Your task to perform on an android device: Go to network settings Image 0: 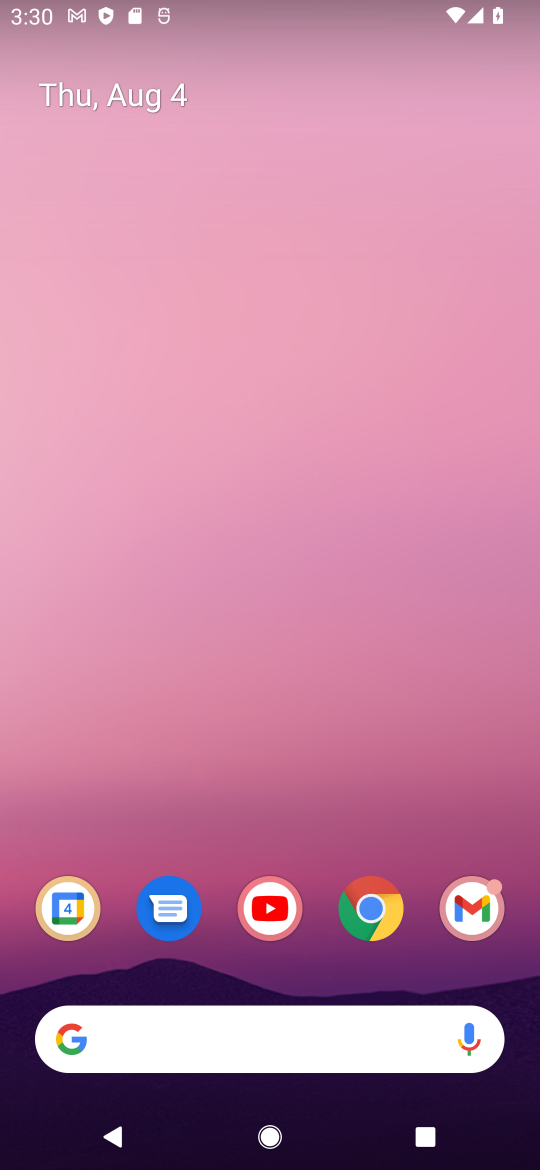
Step 0: drag from (438, 796) to (393, 53)
Your task to perform on an android device: Go to network settings Image 1: 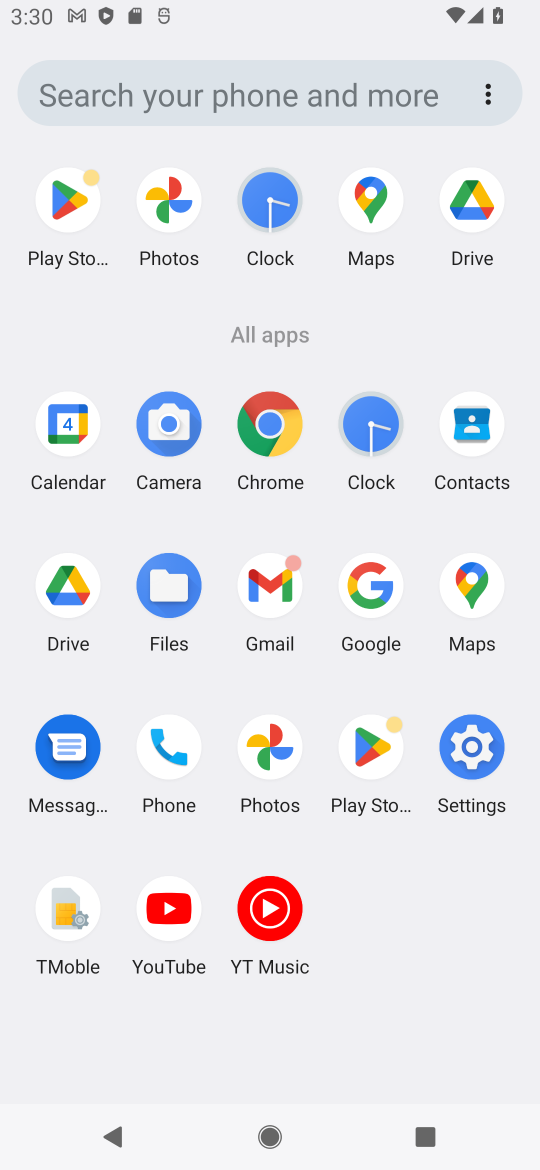
Step 1: click (472, 752)
Your task to perform on an android device: Go to network settings Image 2: 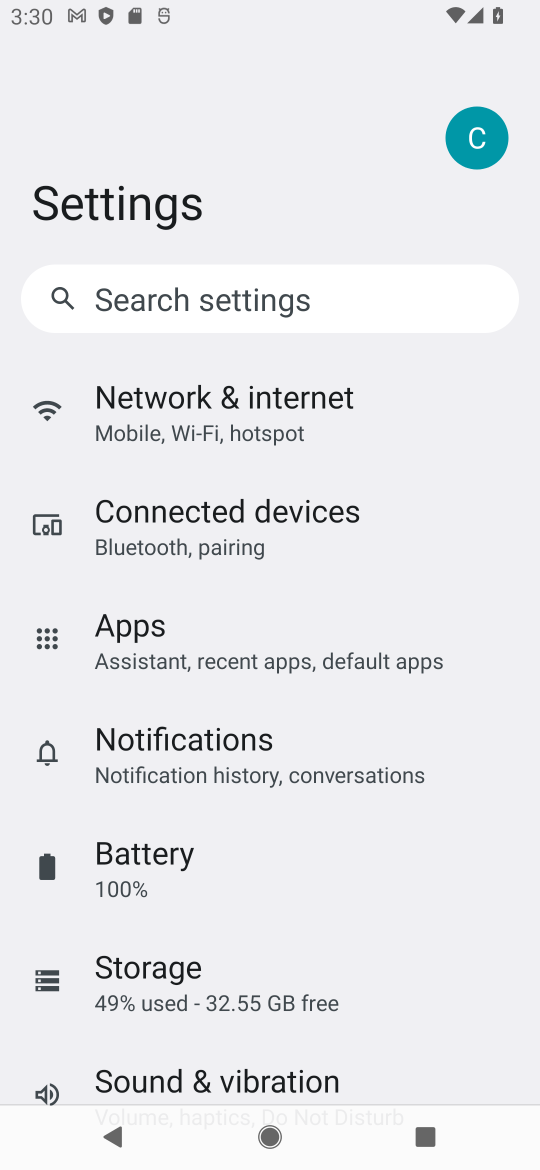
Step 2: click (170, 398)
Your task to perform on an android device: Go to network settings Image 3: 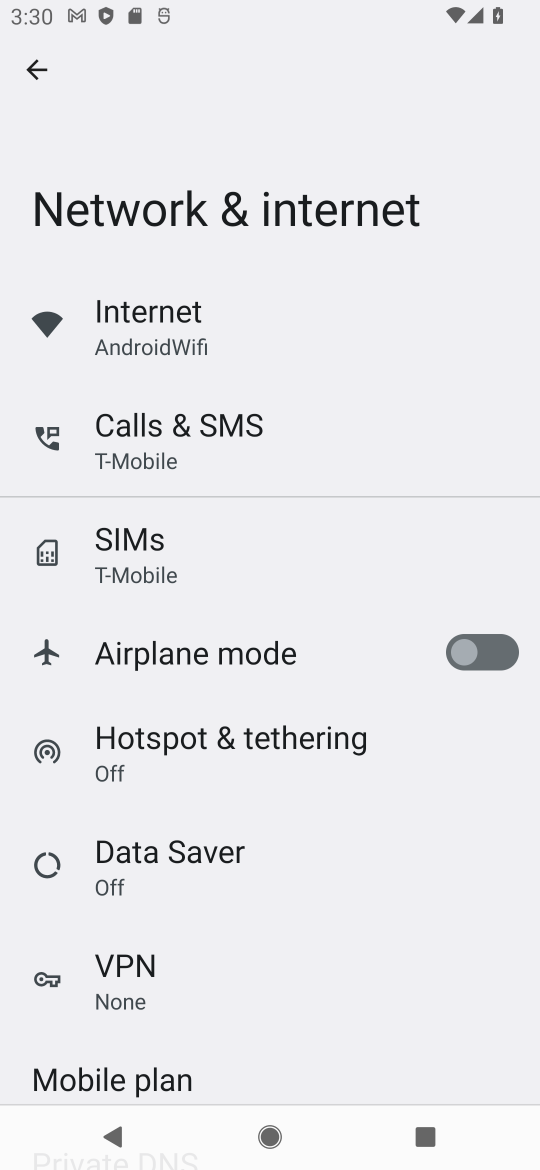
Step 3: task complete